Your task to perform on an android device: Go to Android settings Image 0: 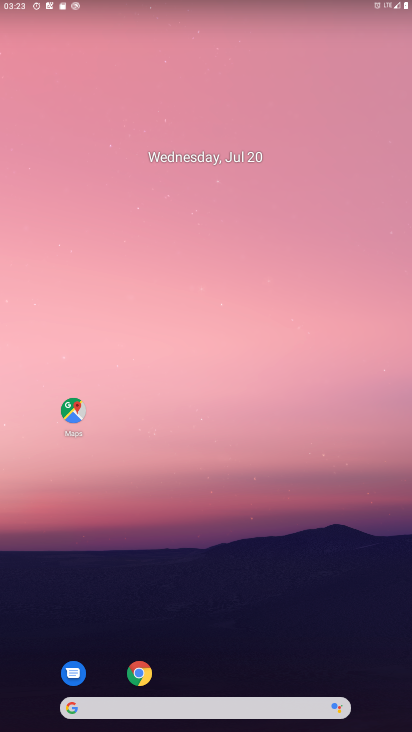
Step 0: drag from (224, 652) to (231, 125)
Your task to perform on an android device: Go to Android settings Image 1: 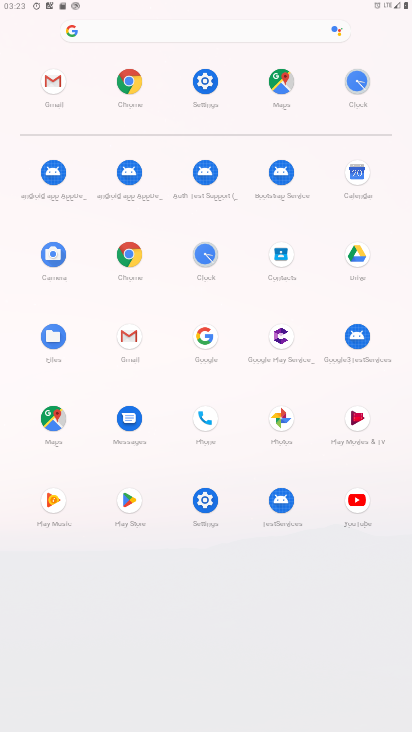
Step 1: click (204, 509)
Your task to perform on an android device: Go to Android settings Image 2: 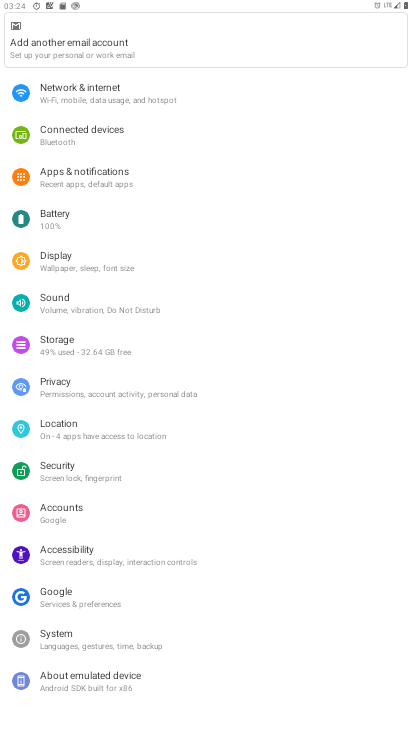
Step 2: click (86, 653)
Your task to perform on an android device: Go to Android settings Image 3: 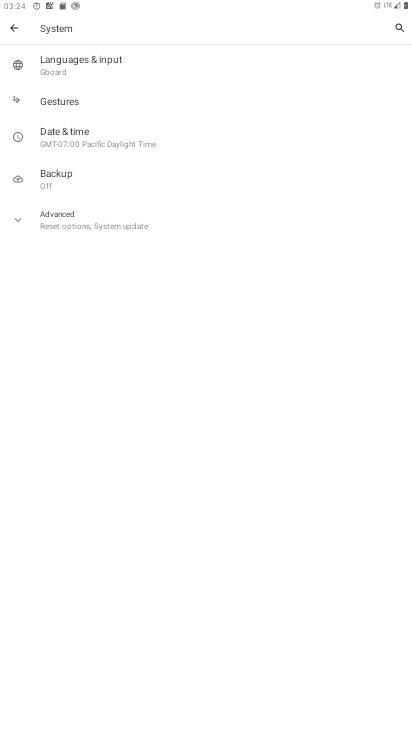
Step 3: click (15, 25)
Your task to perform on an android device: Go to Android settings Image 4: 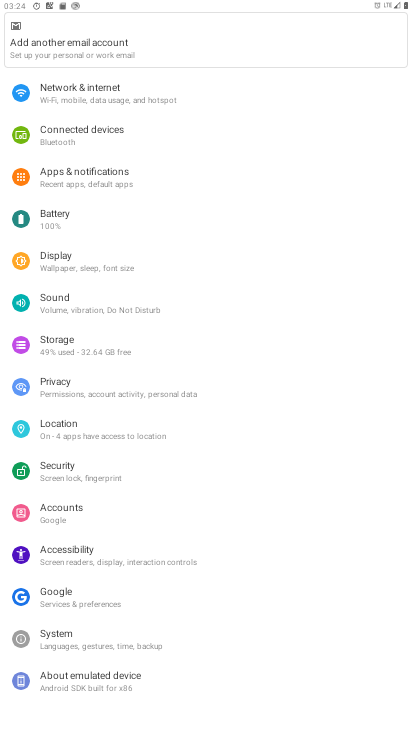
Step 4: click (102, 682)
Your task to perform on an android device: Go to Android settings Image 5: 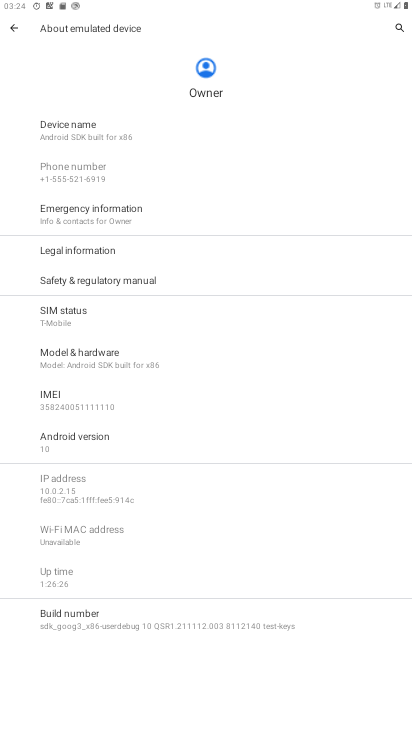
Step 5: click (73, 439)
Your task to perform on an android device: Go to Android settings Image 6: 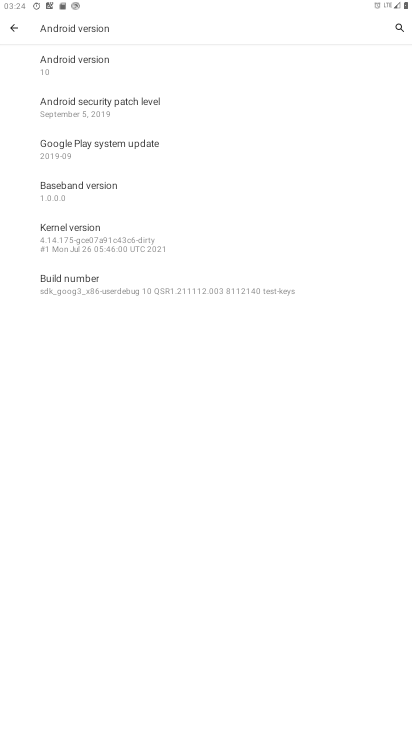
Step 6: task complete